Your task to perform on an android device: allow cookies in the chrome app Image 0: 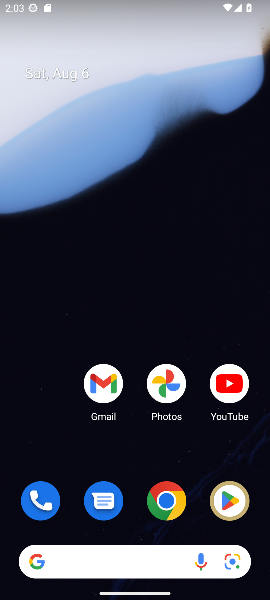
Step 0: press home button
Your task to perform on an android device: allow cookies in the chrome app Image 1: 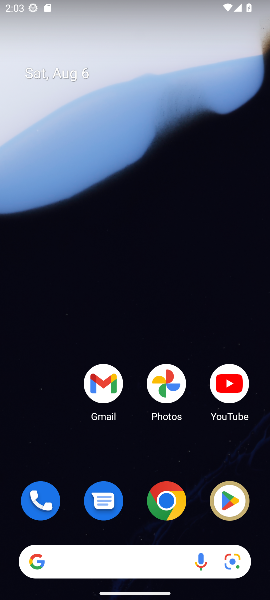
Step 1: click (165, 509)
Your task to perform on an android device: allow cookies in the chrome app Image 2: 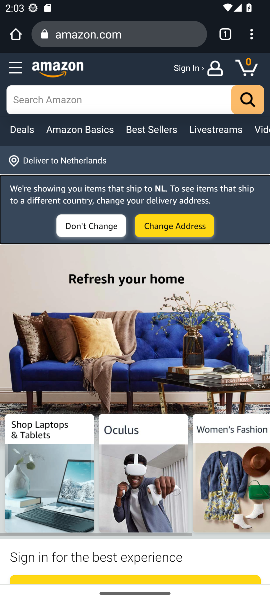
Step 2: drag from (255, 45) to (158, 433)
Your task to perform on an android device: allow cookies in the chrome app Image 3: 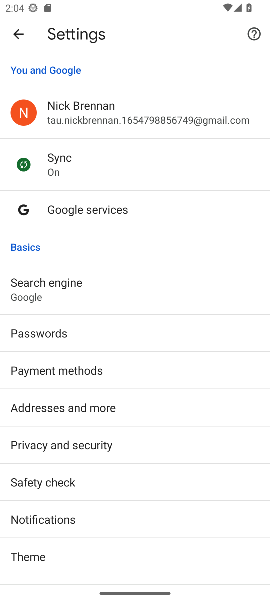
Step 3: drag from (121, 528) to (166, 201)
Your task to perform on an android device: allow cookies in the chrome app Image 4: 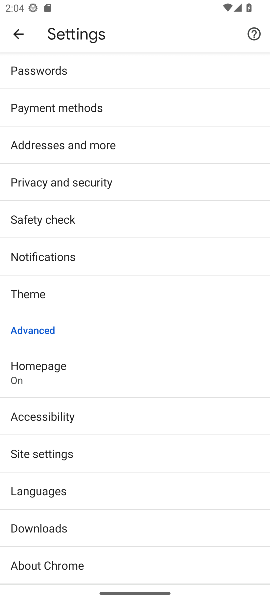
Step 4: click (42, 454)
Your task to perform on an android device: allow cookies in the chrome app Image 5: 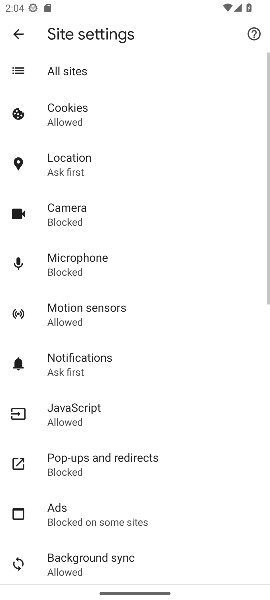
Step 5: click (67, 121)
Your task to perform on an android device: allow cookies in the chrome app Image 6: 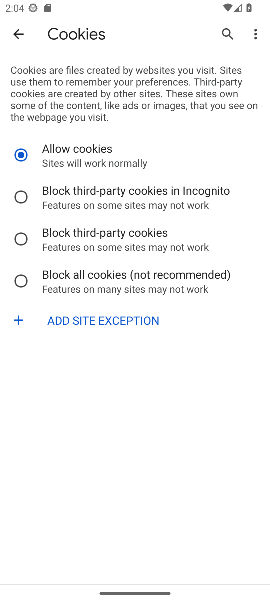
Step 6: task complete